Your task to perform on an android device: Check out the new ikea catalog. Image 0: 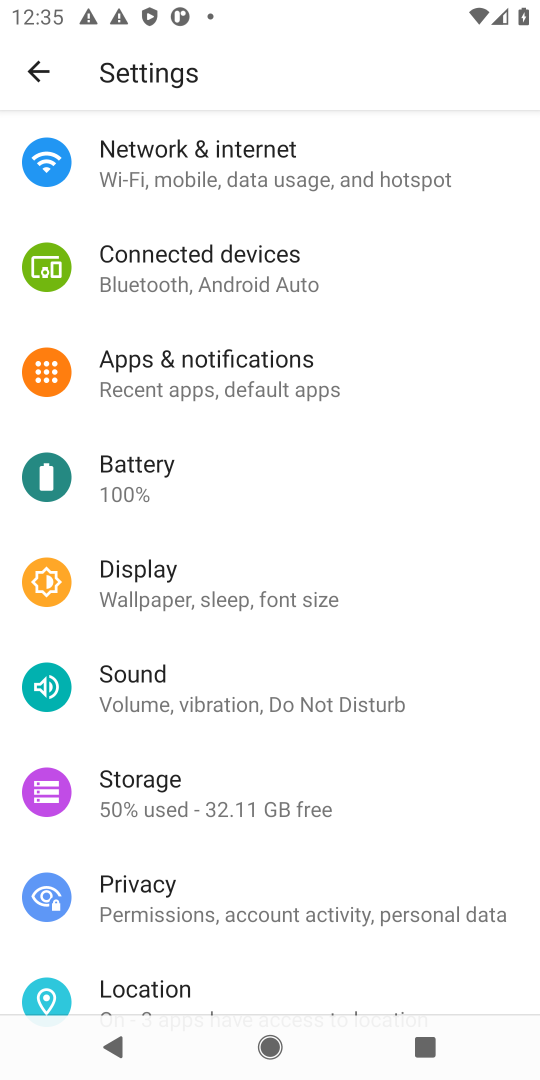
Step 0: press home button
Your task to perform on an android device: Check out the new ikea catalog. Image 1: 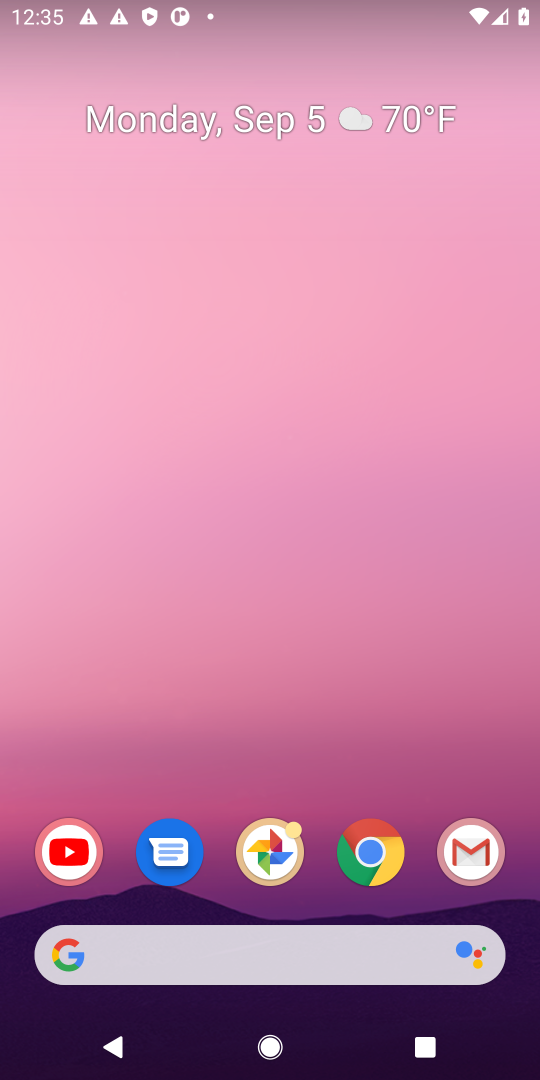
Step 1: click (370, 853)
Your task to perform on an android device: Check out the new ikea catalog. Image 2: 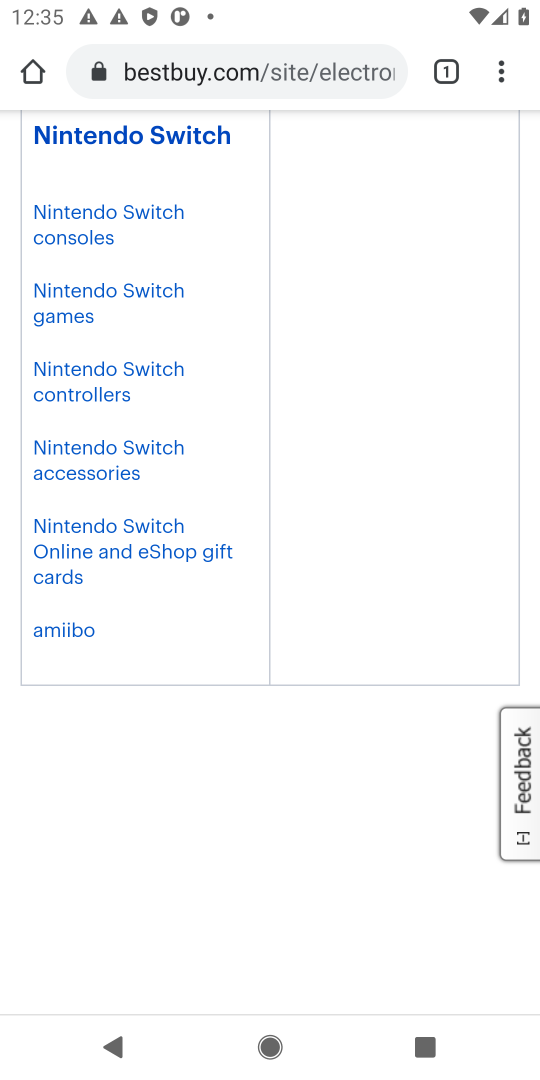
Step 2: click (251, 55)
Your task to perform on an android device: Check out the new ikea catalog. Image 3: 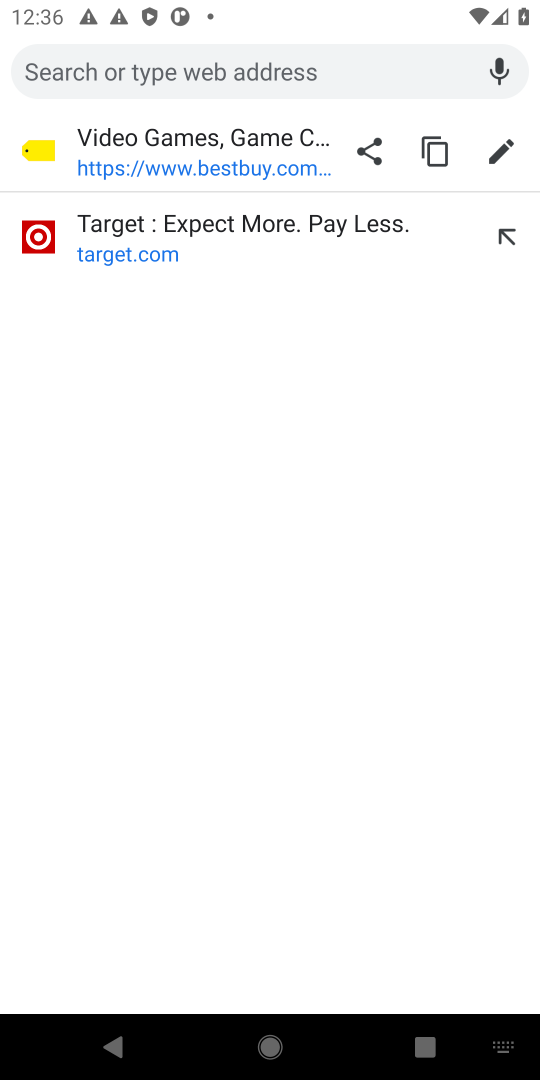
Step 3: type "ikea catalog"
Your task to perform on an android device: Check out the new ikea catalog. Image 4: 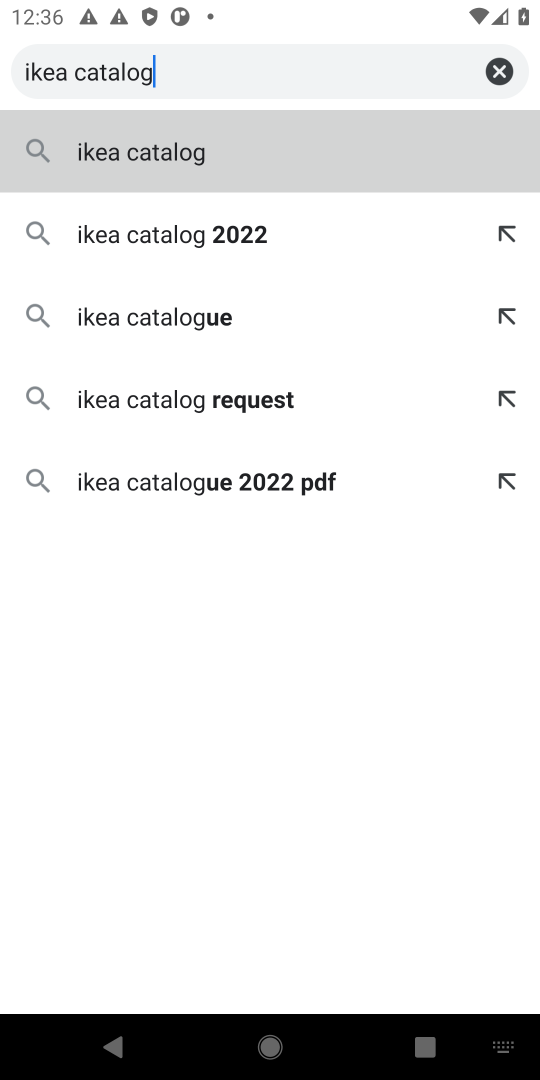
Step 4: click (144, 153)
Your task to perform on an android device: Check out the new ikea catalog. Image 5: 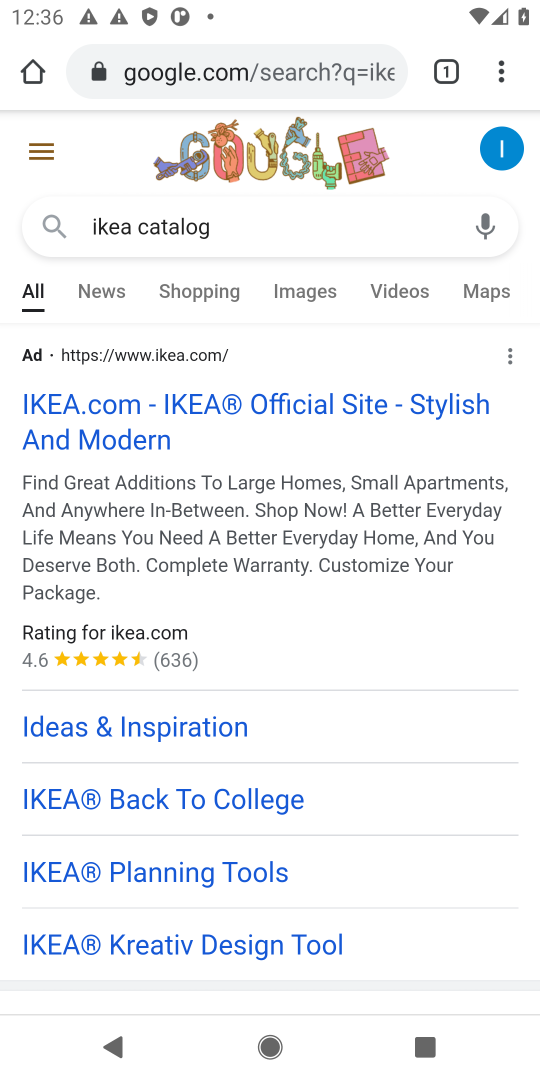
Step 5: drag from (313, 421) to (308, 258)
Your task to perform on an android device: Check out the new ikea catalog. Image 6: 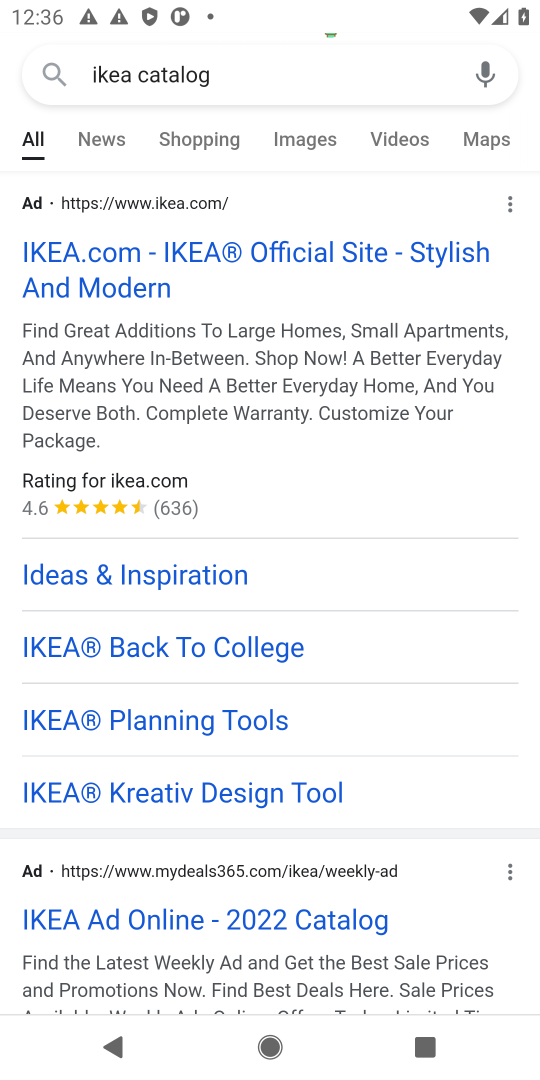
Step 6: drag from (343, 965) to (326, 245)
Your task to perform on an android device: Check out the new ikea catalog. Image 7: 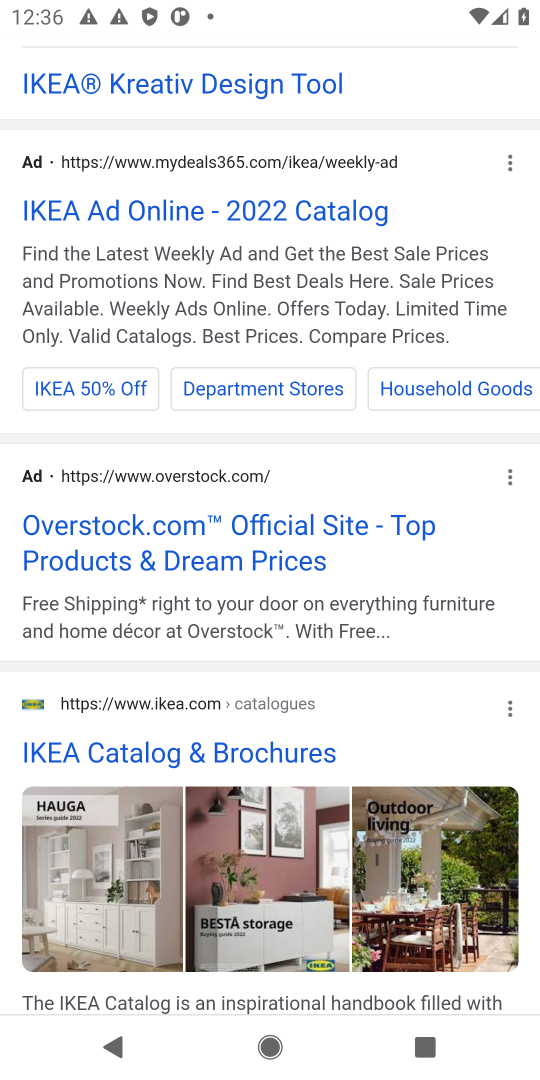
Step 7: click (134, 743)
Your task to perform on an android device: Check out the new ikea catalog. Image 8: 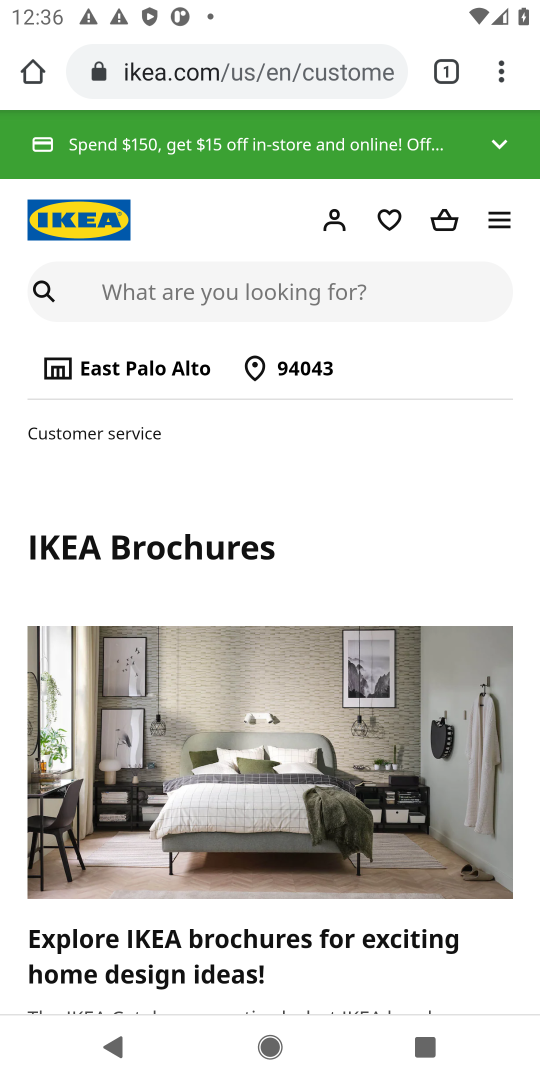
Step 8: task complete